Your task to perform on an android device: delete a single message in the gmail app Image 0: 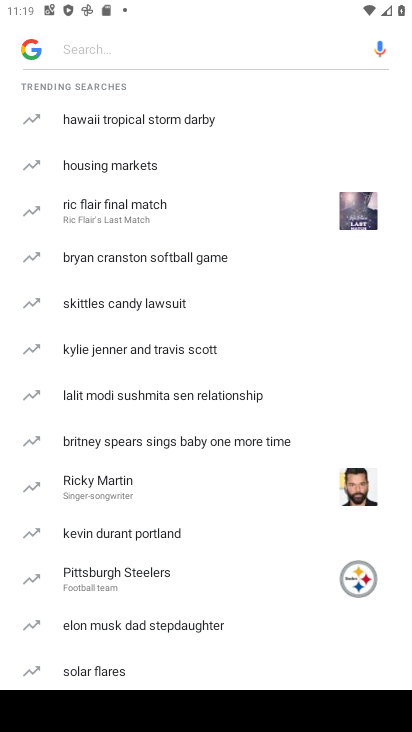
Step 0: press home button
Your task to perform on an android device: delete a single message in the gmail app Image 1: 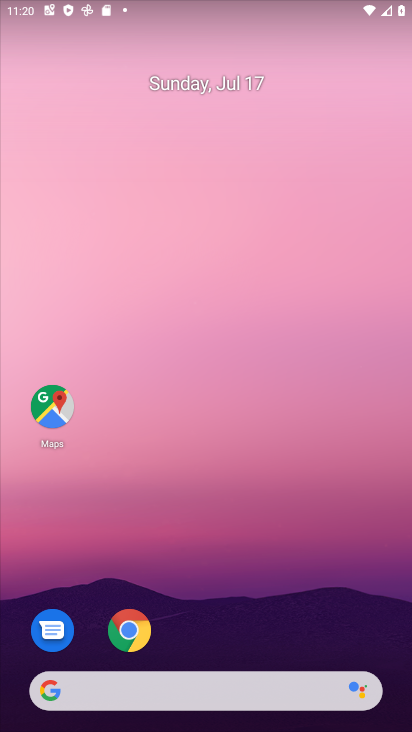
Step 1: drag from (269, 609) to (99, 3)
Your task to perform on an android device: delete a single message in the gmail app Image 2: 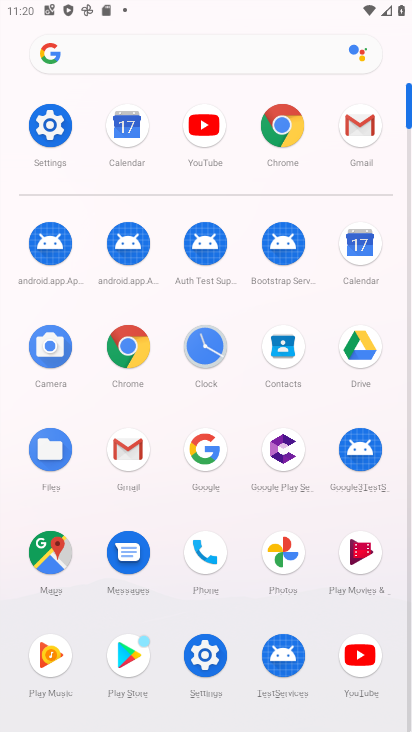
Step 2: click (359, 142)
Your task to perform on an android device: delete a single message in the gmail app Image 3: 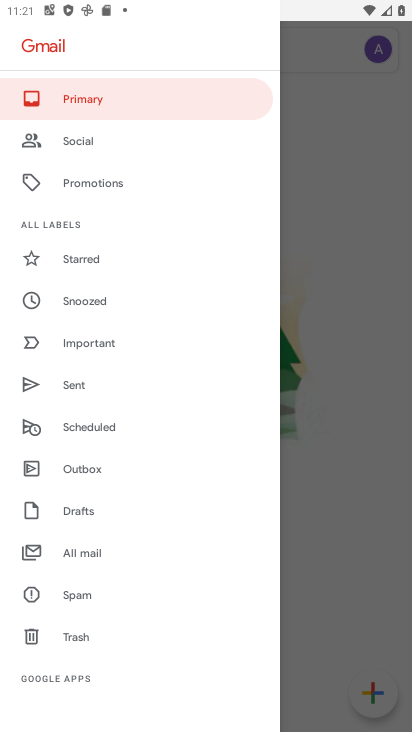
Step 3: click (100, 557)
Your task to perform on an android device: delete a single message in the gmail app Image 4: 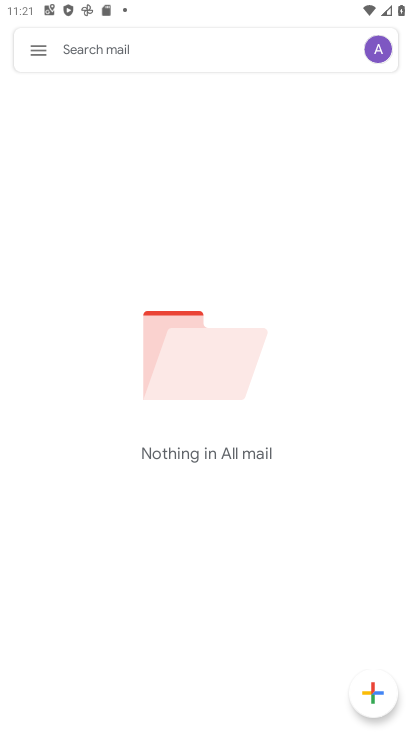
Step 4: task complete